Your task to perform on an android device: check data usage Image 0: 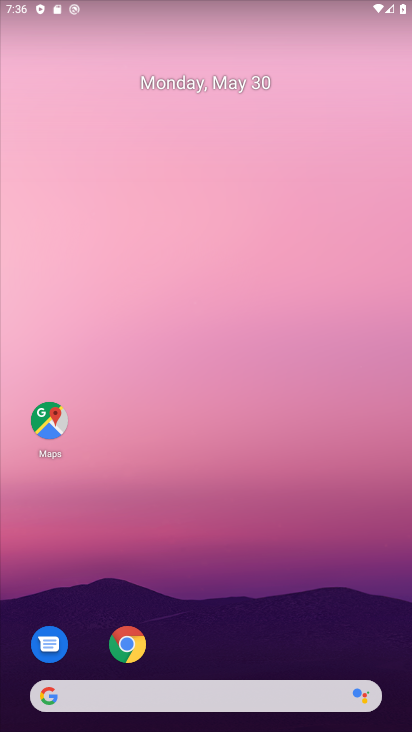
Step 0: drag from (304, 592) to (155, 76)
Your task to perform on an android device: check data usage Image 1: 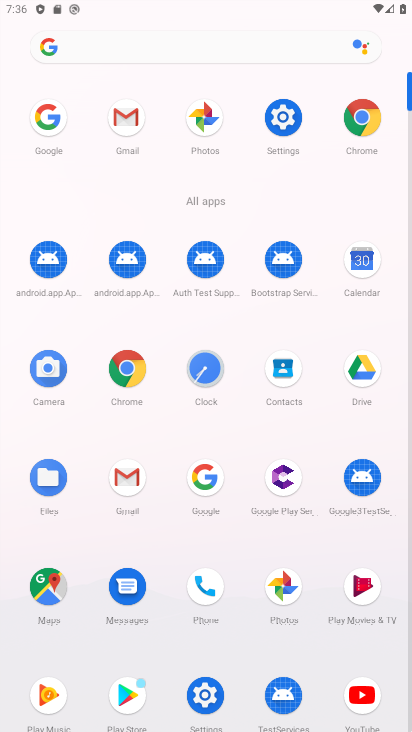
Step 1: click (283, 117)
Your task to perform on an android device: check data usage Image 2: 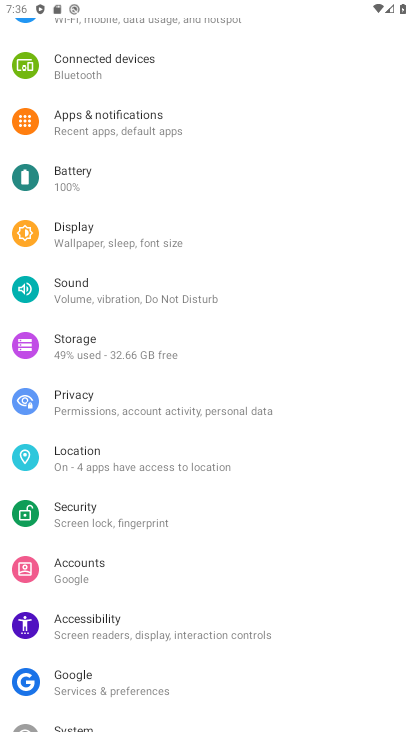
Step 2: drag from (191, 83) to (168, 167)
Your task to perform on an android device: check data usage Image 3: 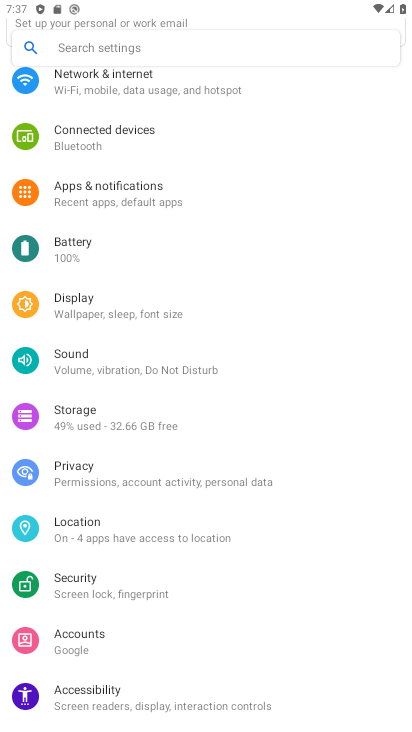
Step 3: drag from (175, 132) to (209, 232)
Your task to perform on an android device: check data usage Image 4: 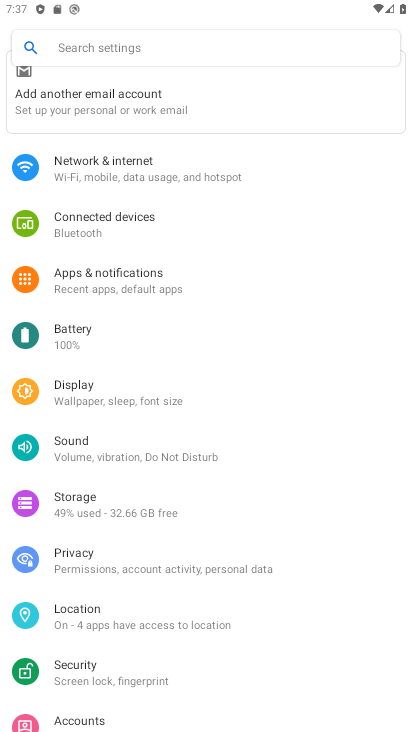
Step 4: click (148, 175)
Your task to perform on an android device: check data usage Image 5: 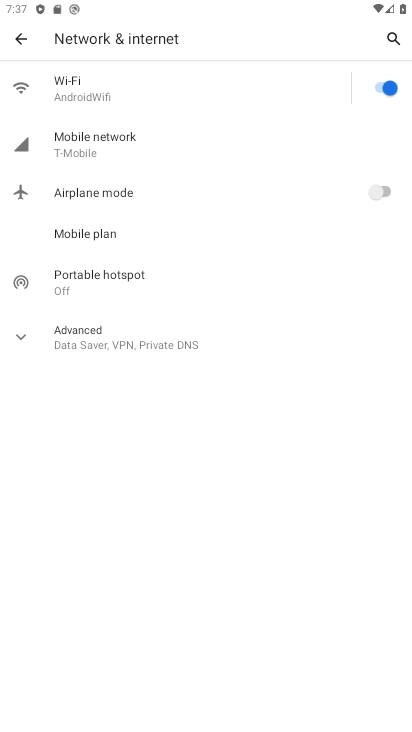
Step 5: click (101, 144)
Your task to perform on an android device: check data usage Image 6: 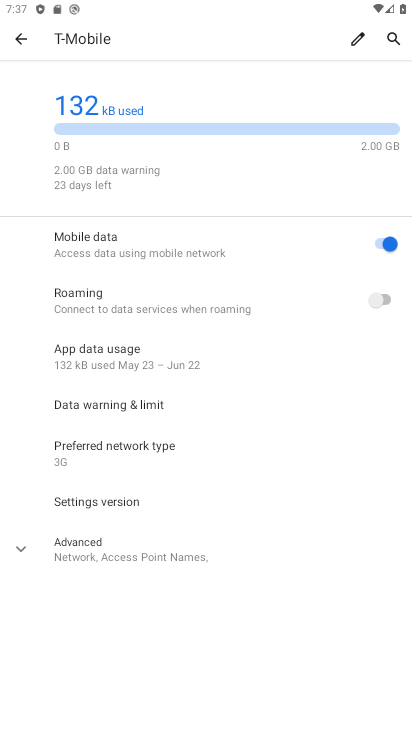
Step 6: task complete